Your task to perform on an android device: open app "Adobe Acrobat Reader" Image 0: 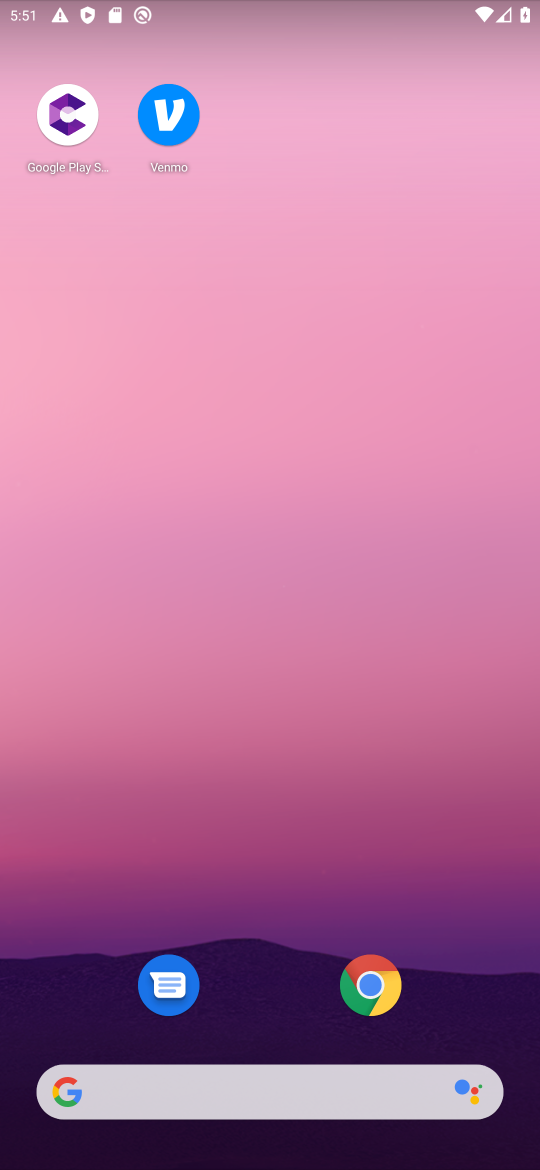
Step 0: drag from (245, 945) to (245, 345)
Your task to perform on an android device: open app "Adobe Acrobat Reader" Image 1: 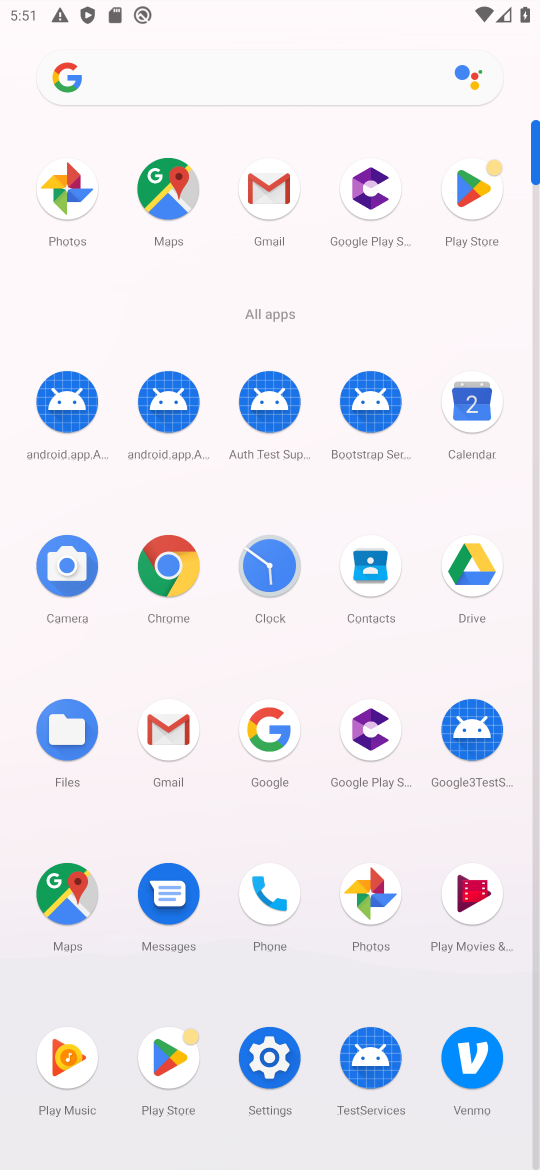
Step 1: click (453, 206)
Your task to perform on an android device: open app "Adobe Acrobat Reader" Image 2: 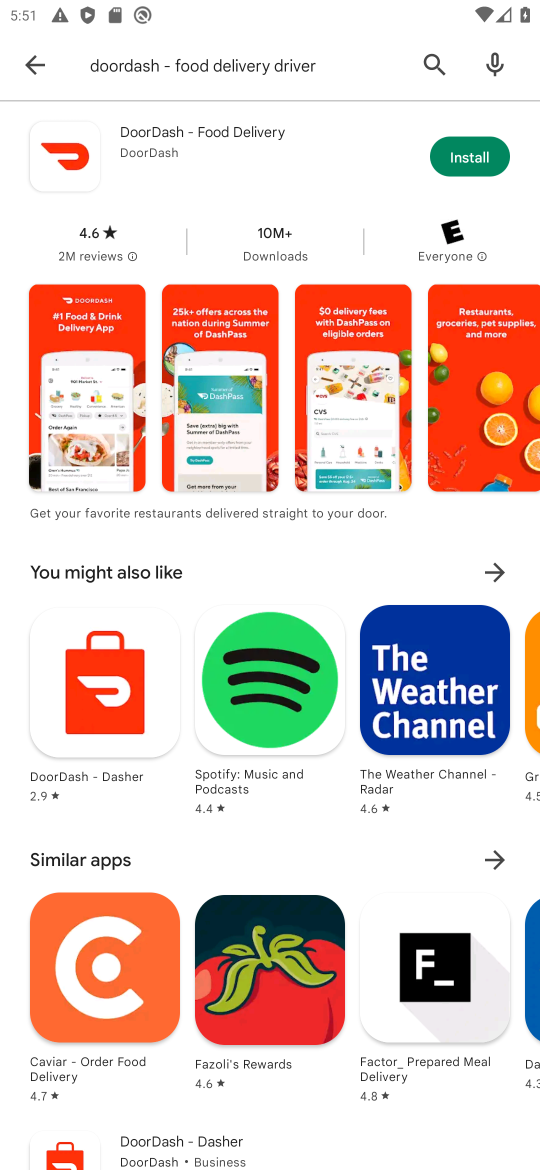
Step 2: click (429, 55)
Your task to perform on an android device: open app "Adobe Acrobat Reader" Image 3: 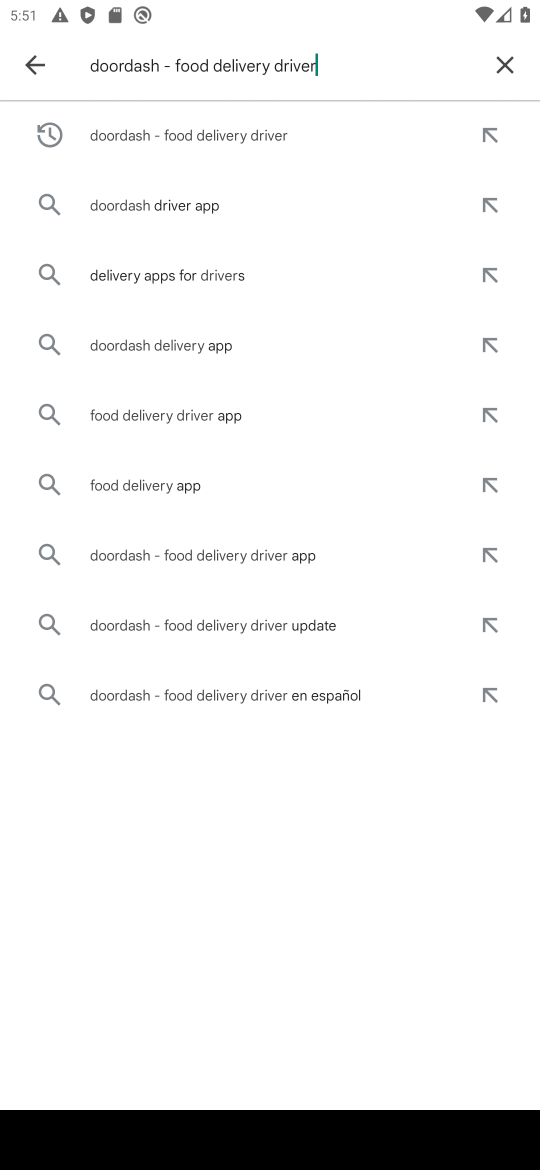
Step 3: click (497, 72)
Your task to perform on an android device: open app "Adobe Acrobat Reader" Image 4: 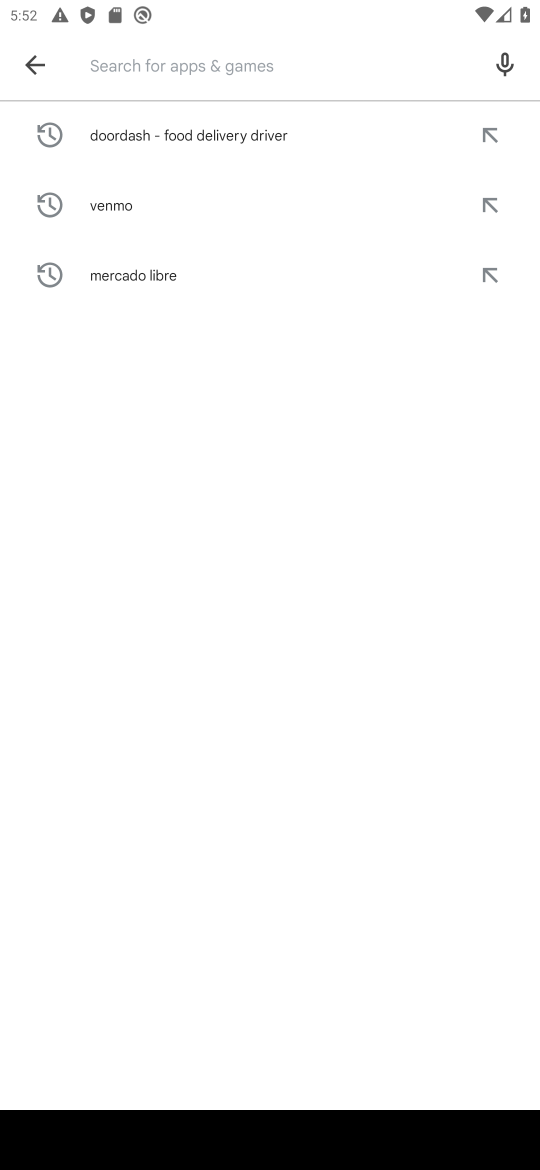
Step 4: type "Adobe Acrobat Reader"
Your task to perform on an android device: open app "Adobe Acrobat Reader" Image 5: 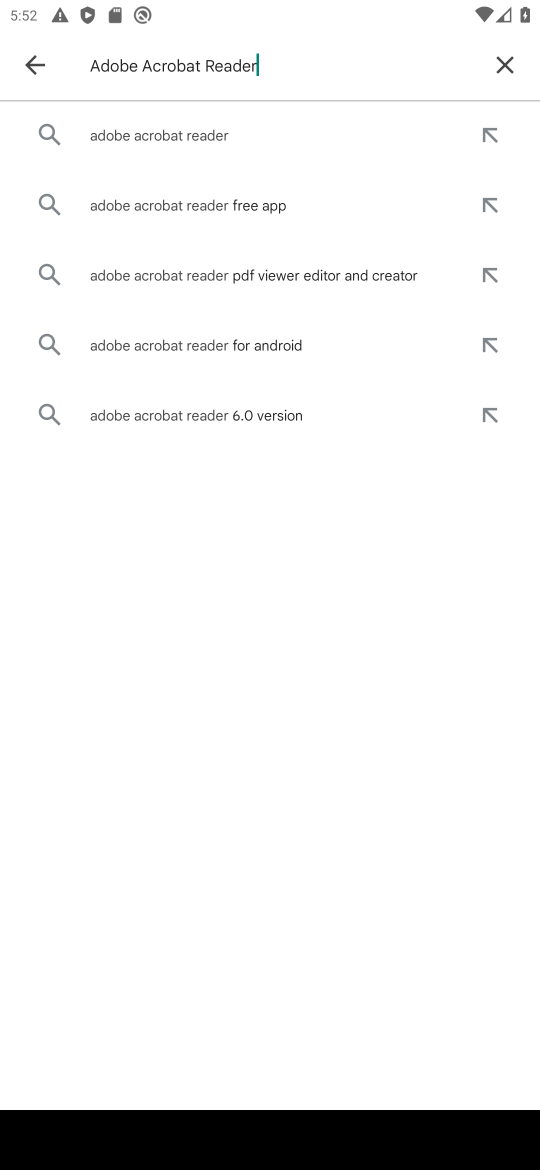
Step 5: click (192, 134)
Your task to perform on an android device: open app "Adobe Acrobat Reader" Image 6: 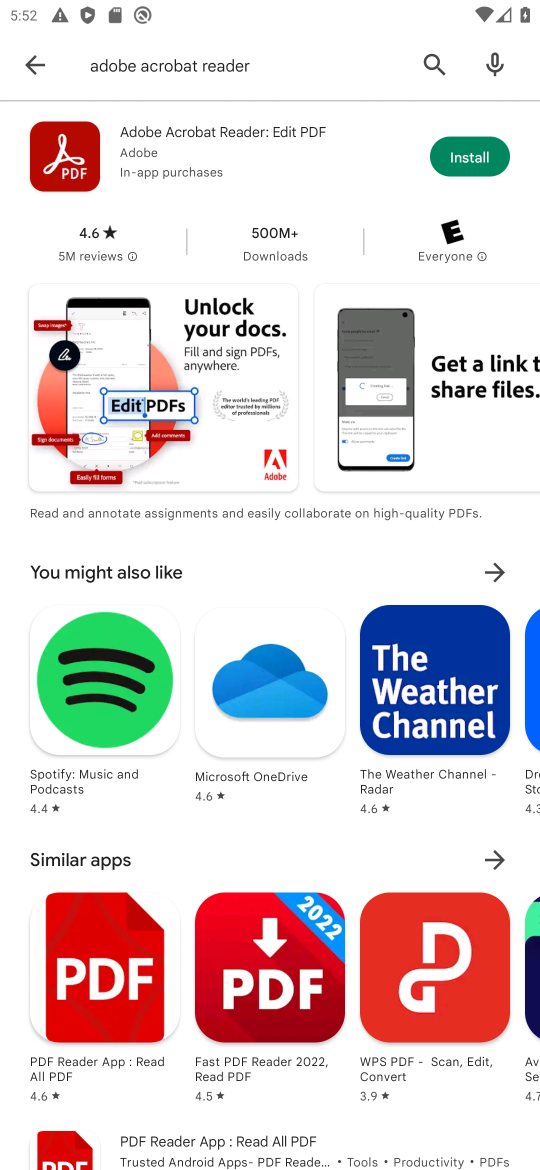
Step 6: task complete